Your task to perform on an android device: What's on my calendar tomorrow? Image 0: 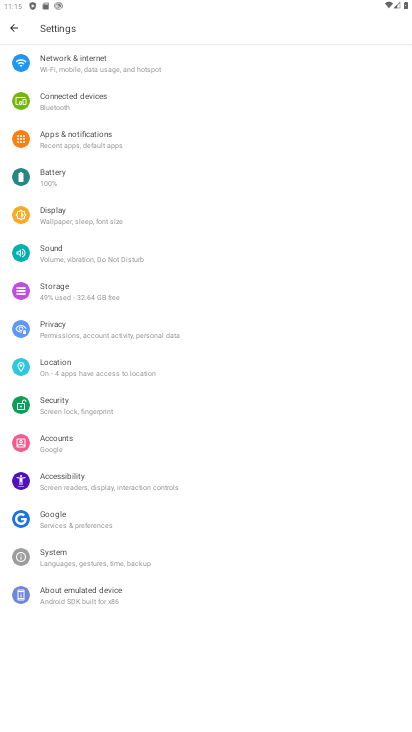
Step 0: press home button
Your task to perform on an android device: What's on my calendar tomorrow? Image 1: 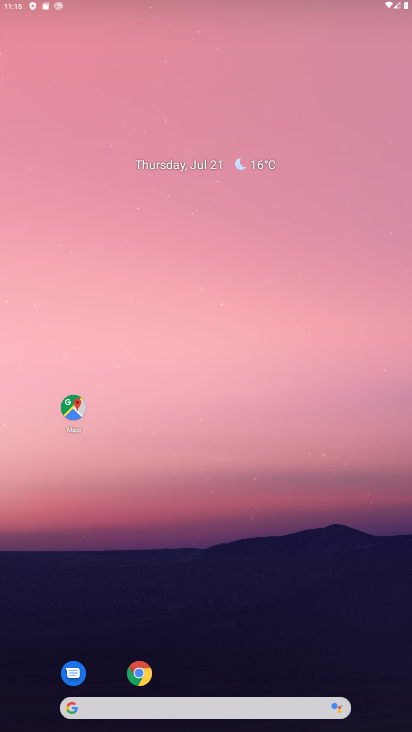
Step 1: drag from (204, 583) to (204, 25)
Your task to perform on an android device: What's on my calendar tomorrow? Image 2: 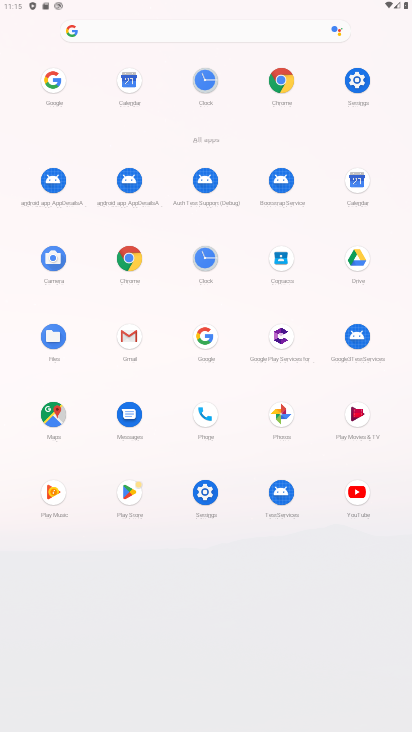
Step 2: click (356, 175)
Your task to perform on an android device: What's on my calendar tomorrow? Image 3: 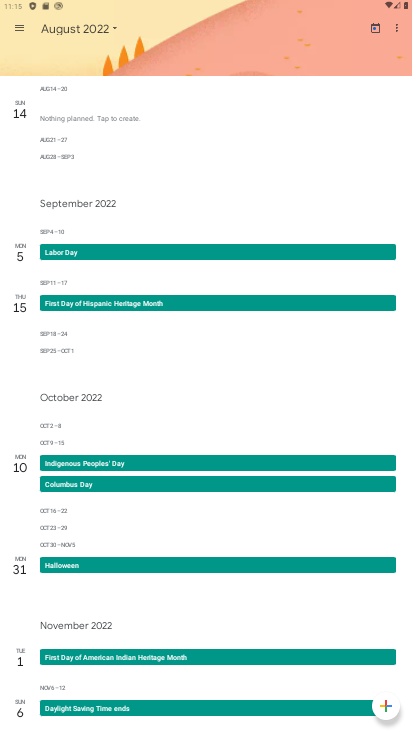
Step 3: click (83, 35)
Your task to perform on an android device: What's on my calendar tomorrow? Image 4: 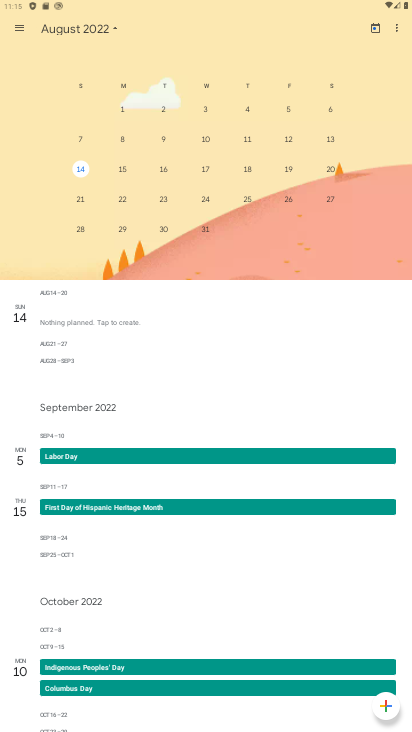
Step 4: click (121, 173)
Your task to perform on an android device: What's on my calendar tomorrow? Image 5: 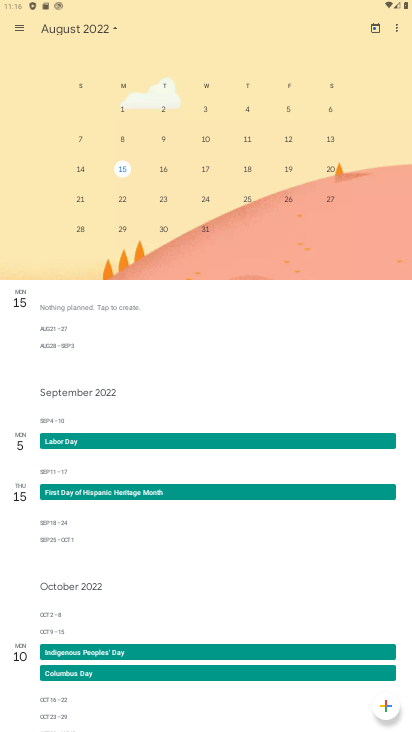
Step 5: task complete